Your task to perform on an android device: Turn on the flashlight Image 0: 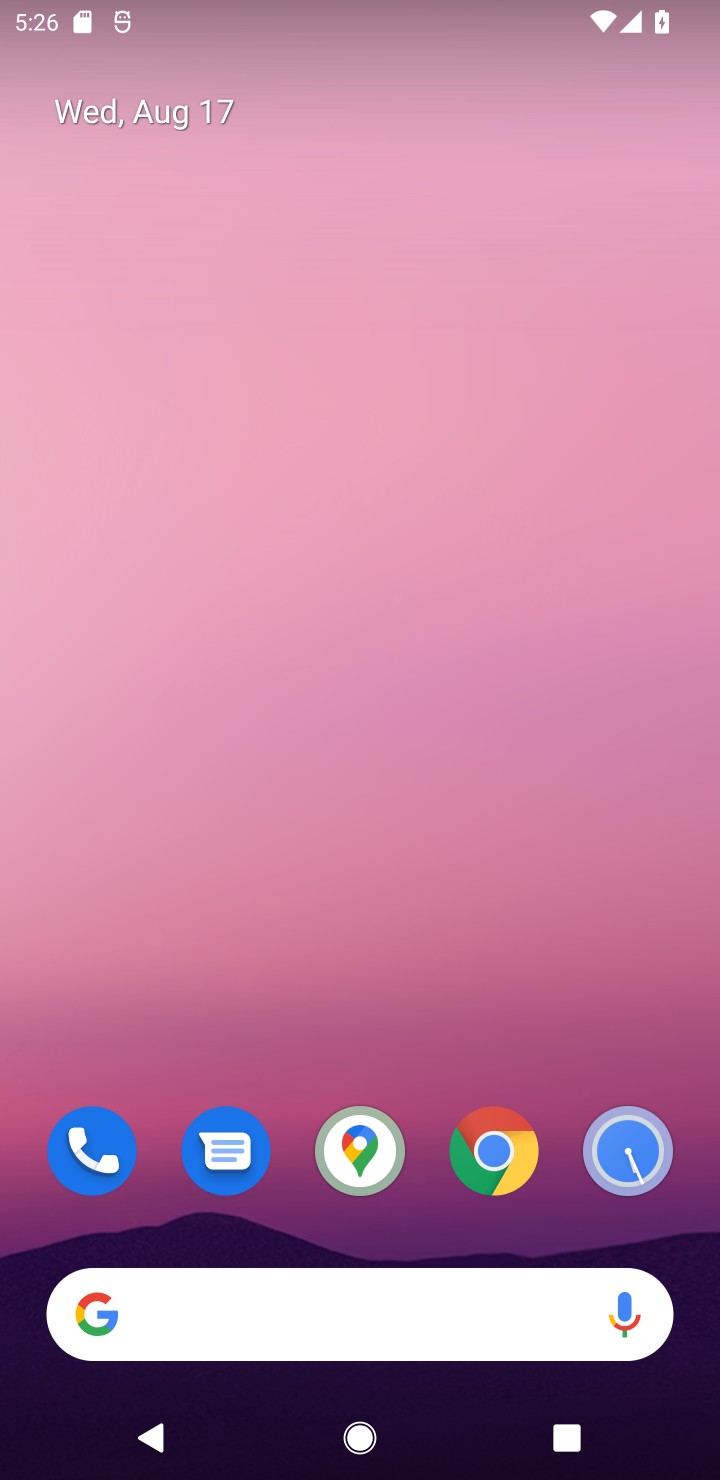
Step 0: drag from (432, 1234) to (428, 168)
Your task to perform on an android device: Turn on the flashlight Image 1: 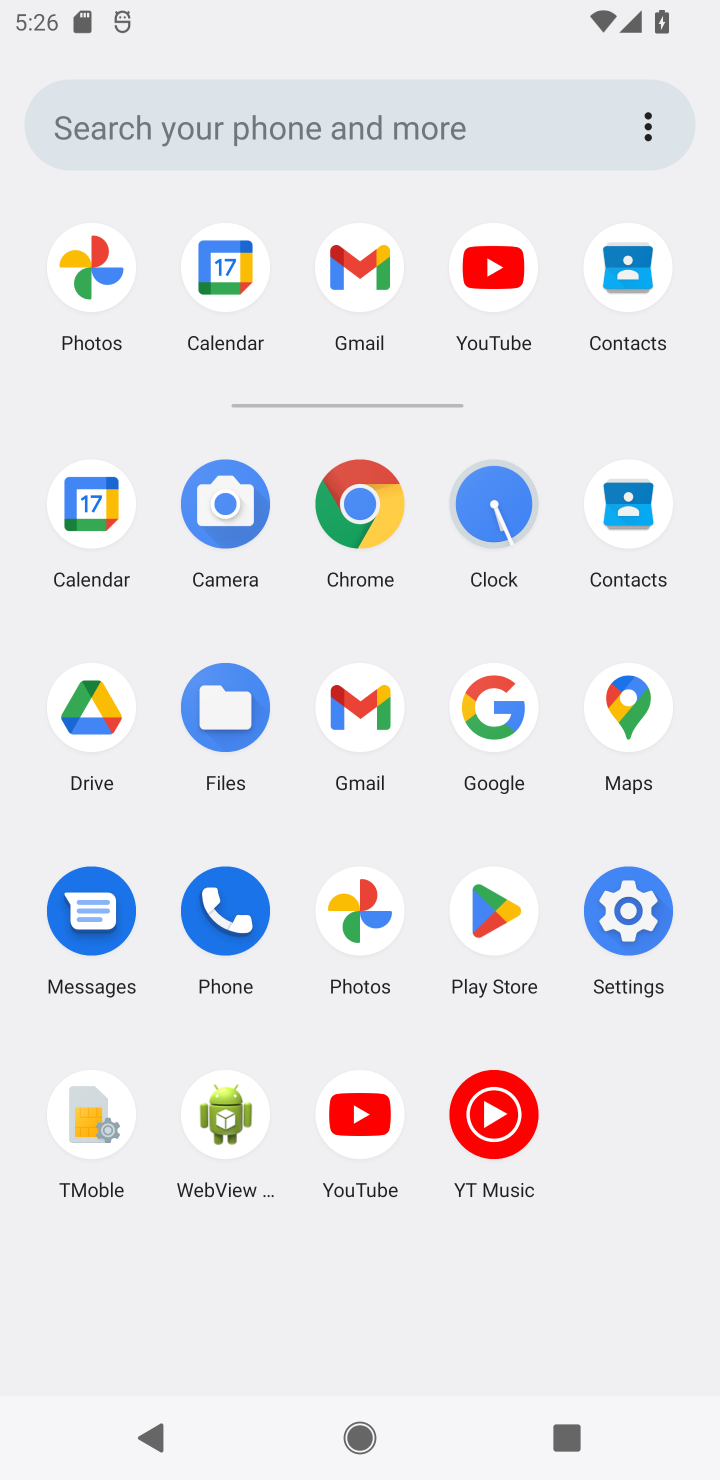
Step 1: click (600, 872)
Your task to perform on an android device: Turn on the flashlight Image 2: 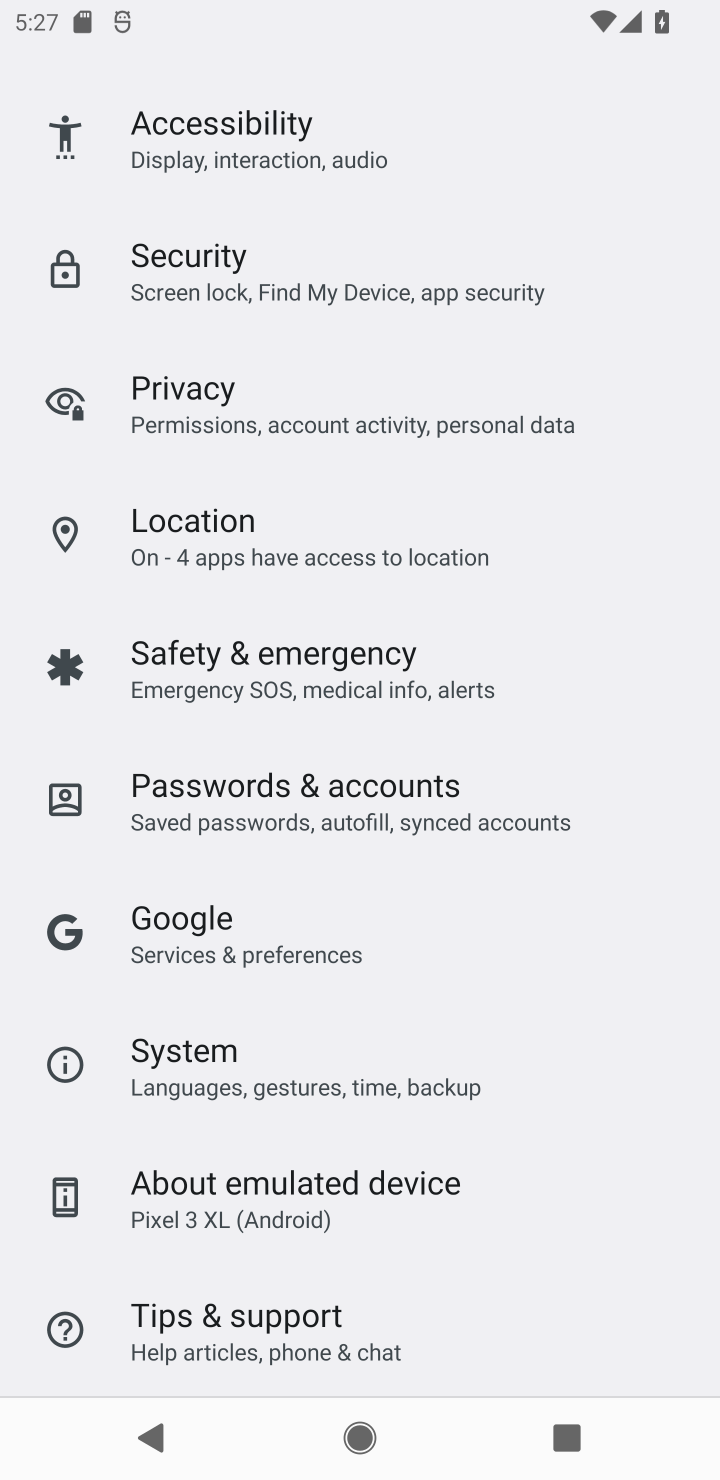
Step 2: task complete